Your task to perform on an android device: Go to Reddit.com Image 0: 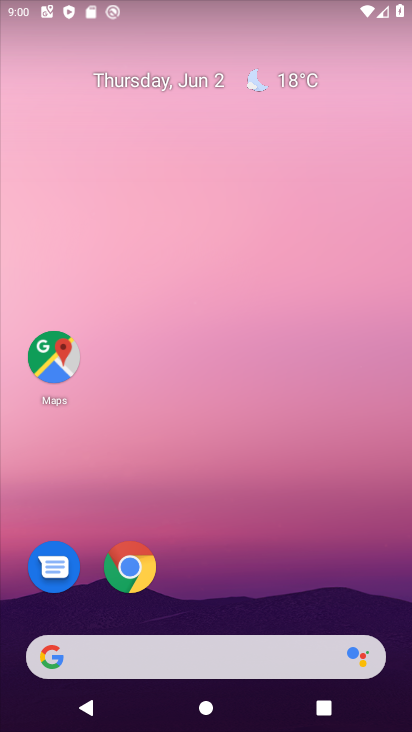
Step 0: press home button
Your task to perform on an android device: Go to Reddit.com Image 1: 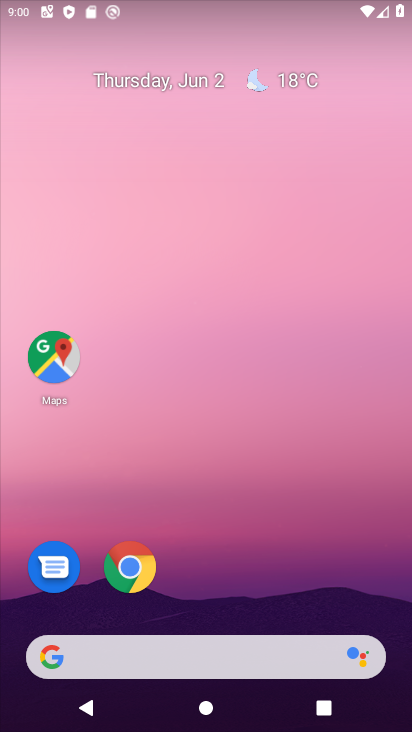
Step 1: click (128, 559)
Your task to perform on an android device: Go to Reddit.com Image 2: 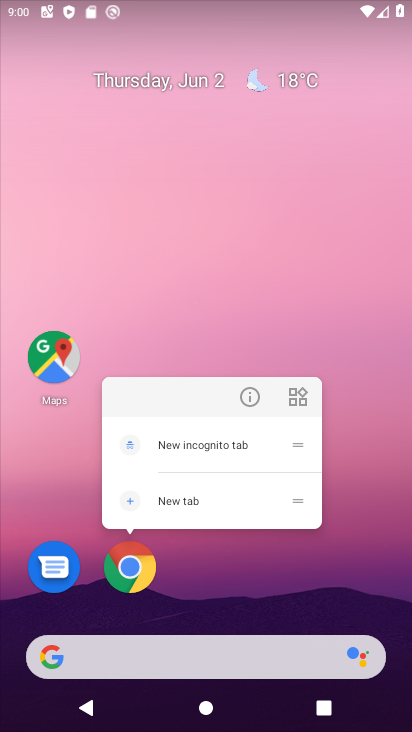
Step 2: click (128, 559)
Your task to perform on an android device: Go to Reddit.com Image 3: 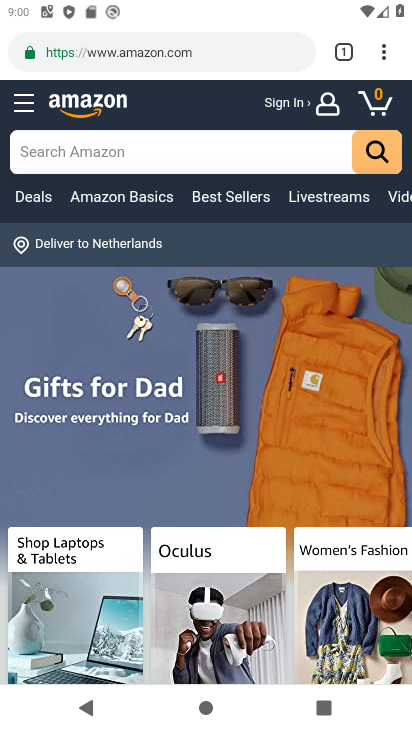
Step 3: click (337, 52)
Your task to perform on an android device: Go to Reddit.com Image 4: 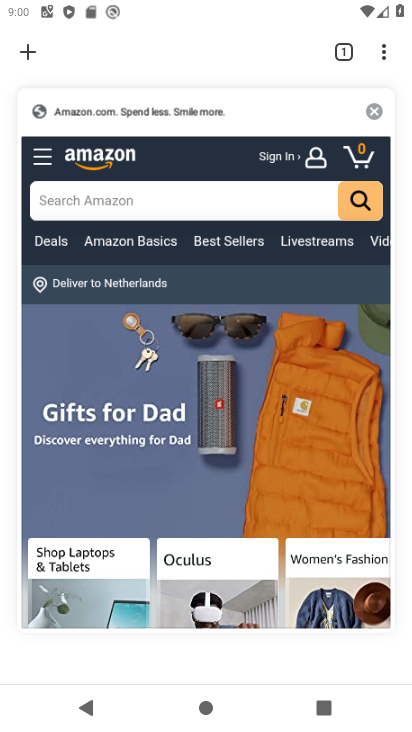
Step 4: click (373, 108)
Your task to perform on an android device: Go to Reddit.com Image 5: 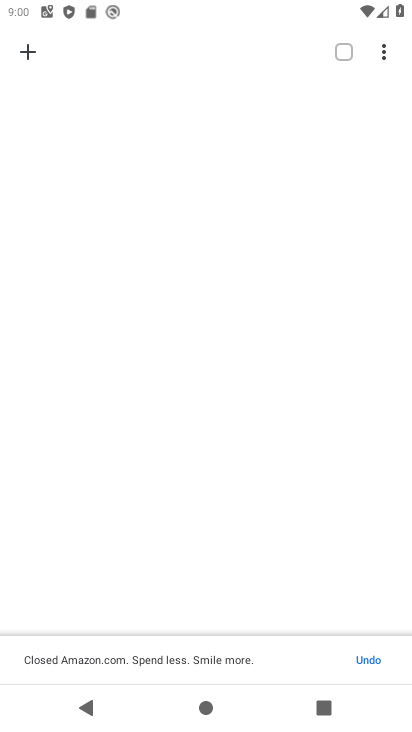
Step 5: click (35, 51)
Your task to perform on an android device: Go to Reddit.com Image 6: 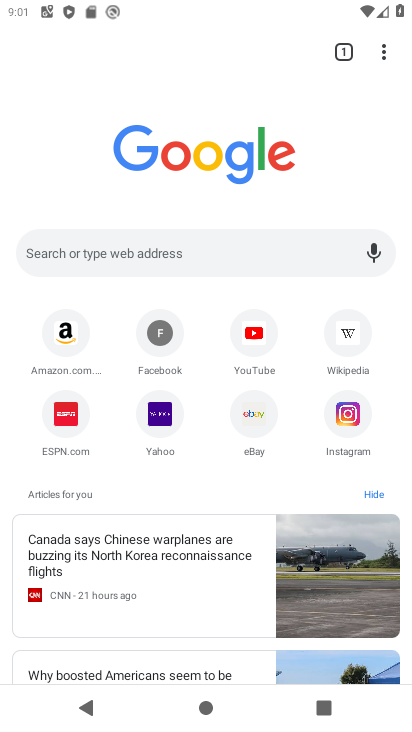
Step 6: click (79, 237)
Your task to perform on an android device: Go to Reddit.com Image 7: 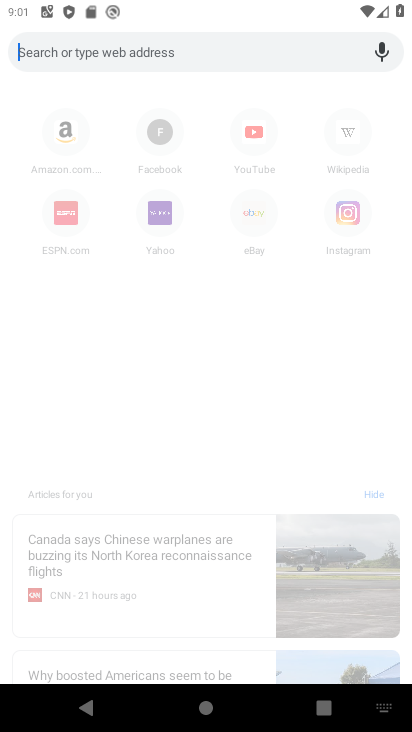
Step 7: type "reddit"
Your task to perform on an android device: Go to Reddit.com Image 8: 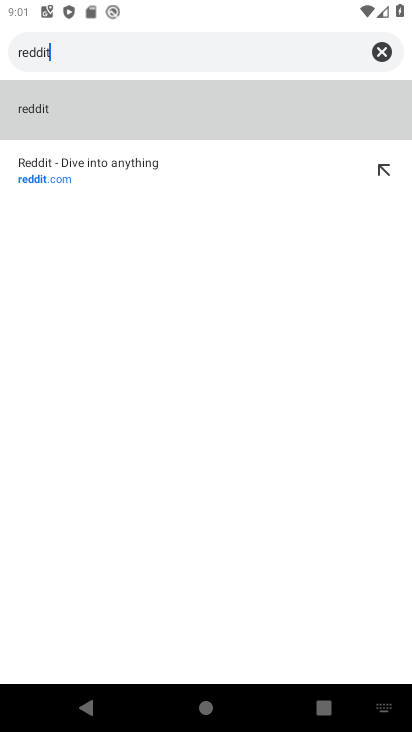
Step 8: click (89, 172)
Your task to perform on an android device: Go to Reddit.com Image 9: 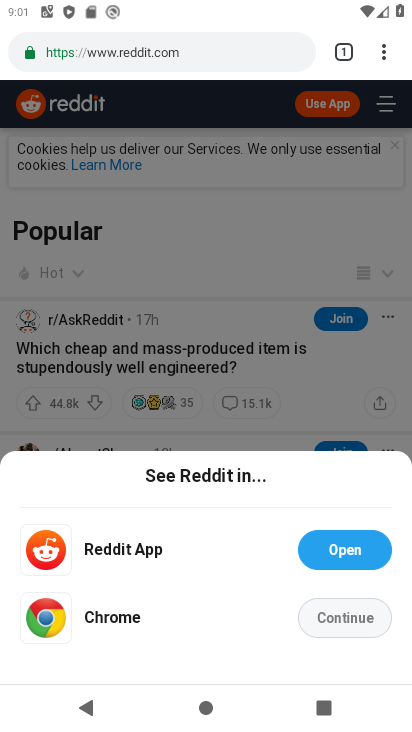
Step 9: click (346, 622)
Your task to perform on an android device: Go to Reddit.com Image 10: 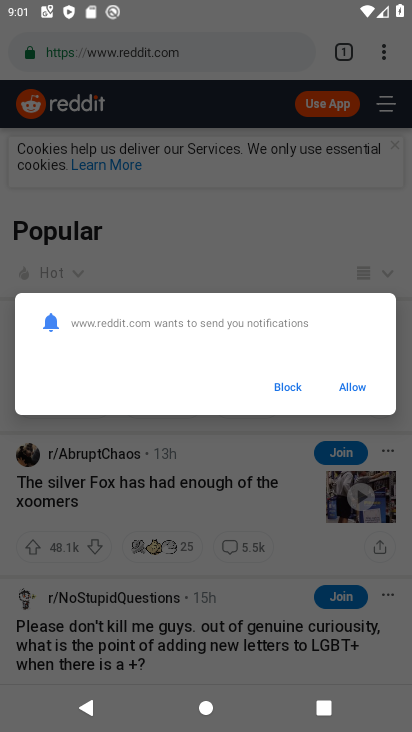
Step 10: click (346, 386)
Your task to perform on an android device: Go to Reddit.com Image 11: 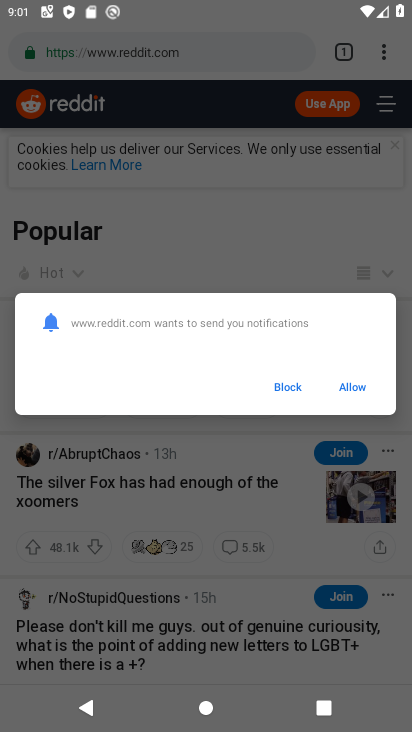
Step 11: click (346, 386)
Your task to perform on an android device: Go to Reddit.com Image 12: 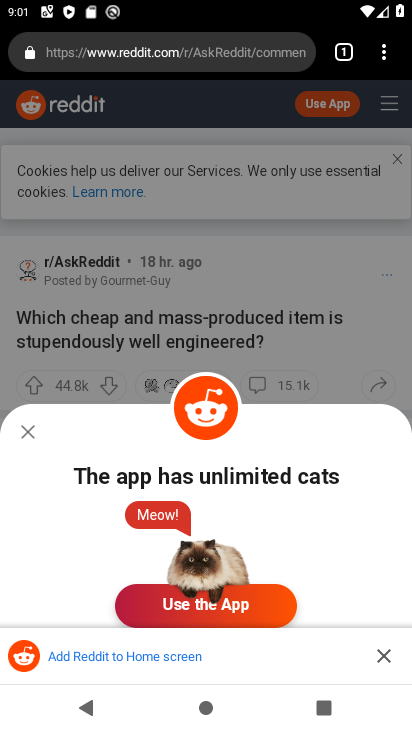
Step 12: drag from (159, 582) to (211, 227)
Your task to perform on an android device: Go to Reddit.com Image 13: 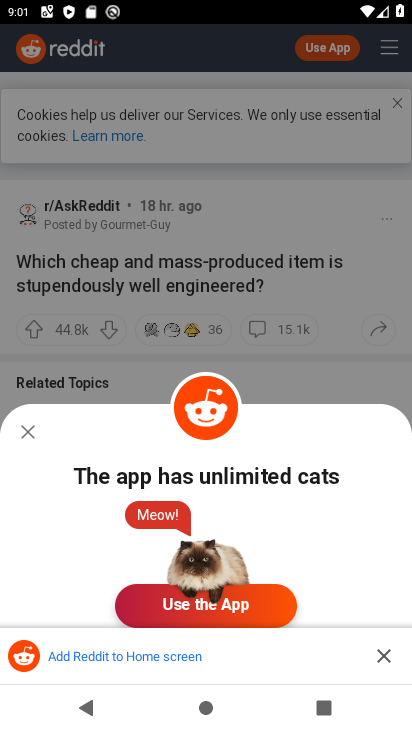
Step 13: click (385, 655)
Your task to perform on an android device: Go to Reddit.com Image 14: 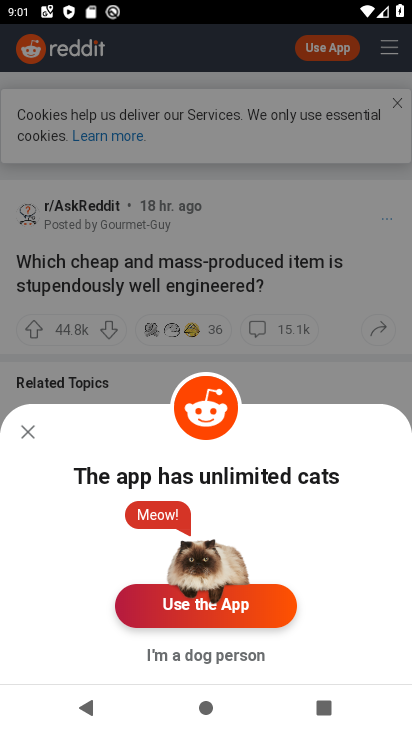
Step 14: click (29, 430)
Your task to perform on an android device: Go to Reddit.com Image 15: 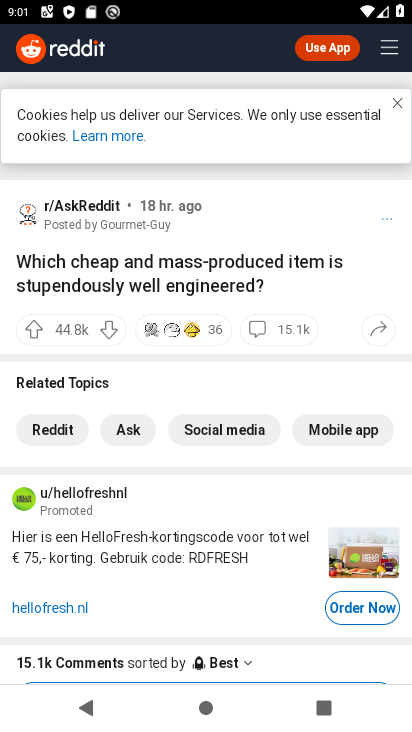
Step 15: task complete